Your task to perform on an android device: turn off improve location accuracy Image 0: 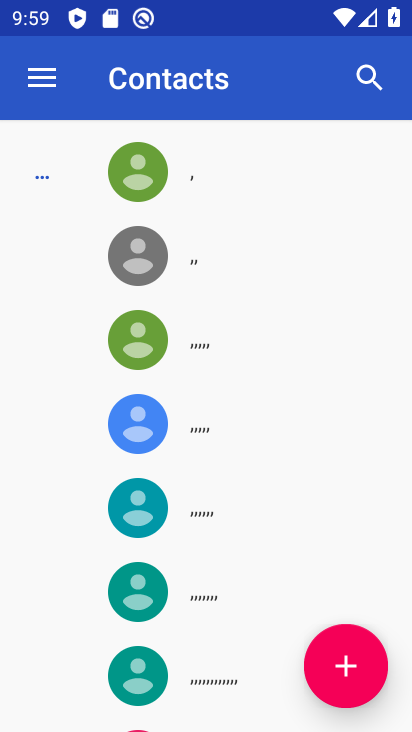
Step 0: press home button
Your task to perform on an android device: turn off improve location accuracy Image 1: 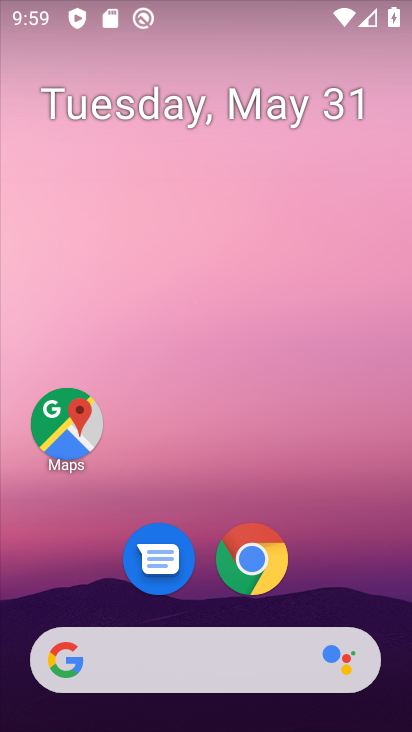
Step 1: drag from (72, 609) to (148, 61)
Your task to perform on an android device: turn off improve location accuracy Image 2: 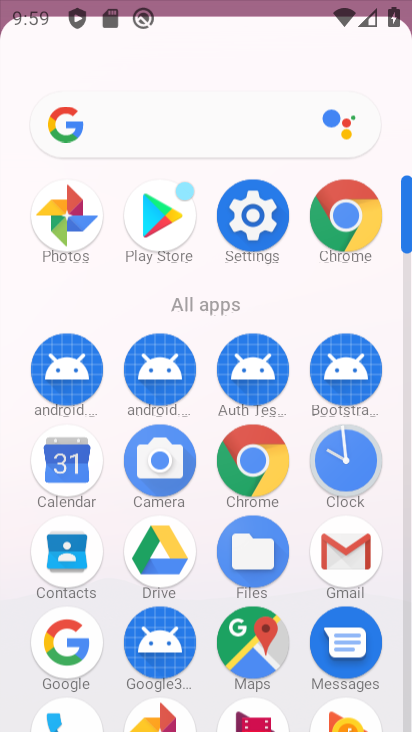
Step 2: drag from (137, 673) to (186, 363)
Your task to perform on an android device: turn off improve location accuracy Image 3: 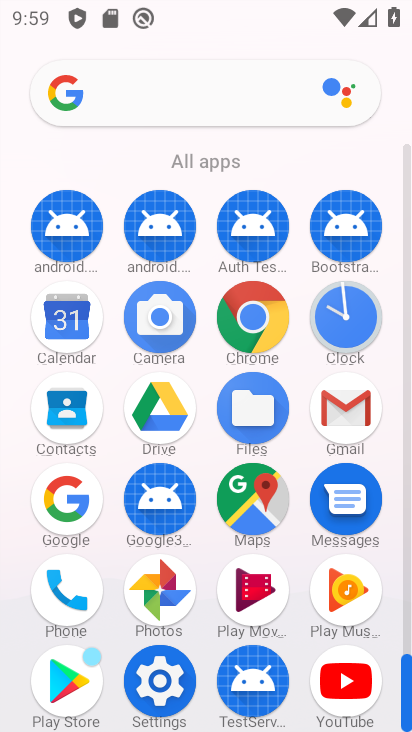
Step 3: click (169, 715)
Your task to perform on an android device: turn off improve location accuracy Image 4: 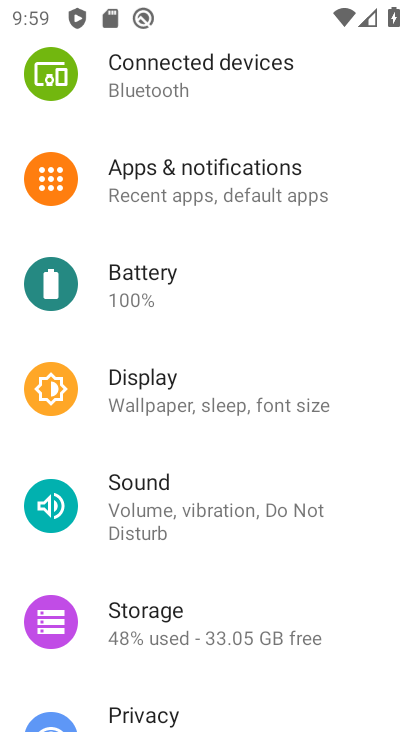
Step 4: drag from (227, 275) to (272, 113)
Your task to perform on an android device: turn off improve location accuracy Image 5: 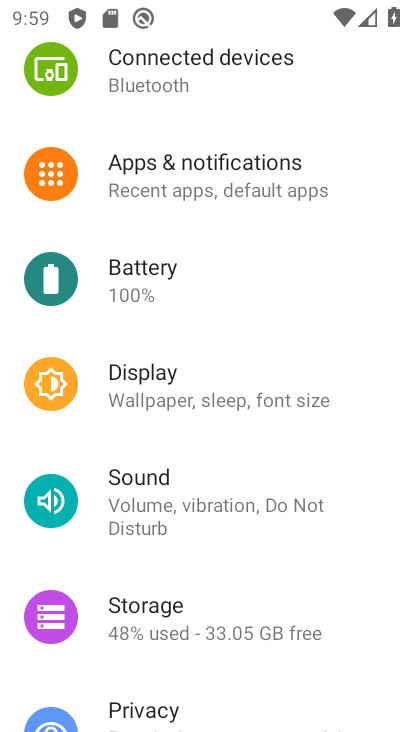
Step 5: drag from (225, 609) to (321, 179)
Your task to perform on an android device: turn off improve location accuracy Image 6: 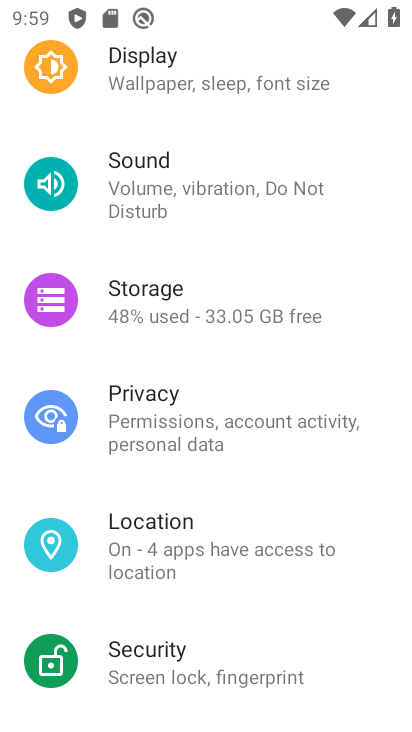
Step 6: click (155, 551)
Your task to perform on an android device: turn off improve location accuracy Image 7: 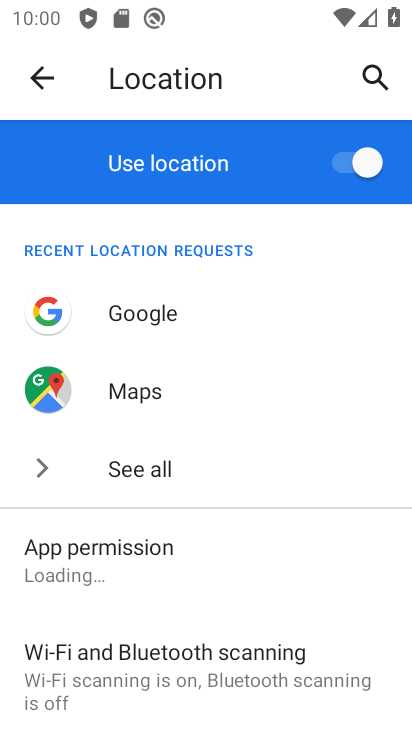
Step 7: drag from (175, 708) to (291, 263)
Your task to perform on an android device: turn off improve location accuracy Image 8: 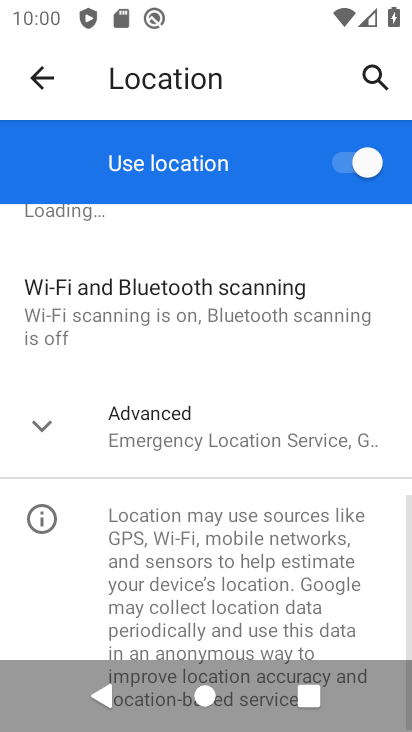
Step 8: click (201, 425)
Your task to perform on an android device: turn off improve location accuracy Image 9: 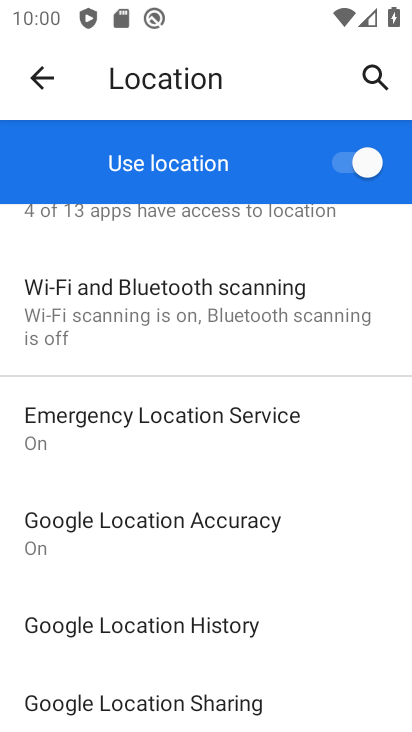
Step 9: click (235, 529)
Your task to perform on an android device: turn off improve location accuracy Image 10: 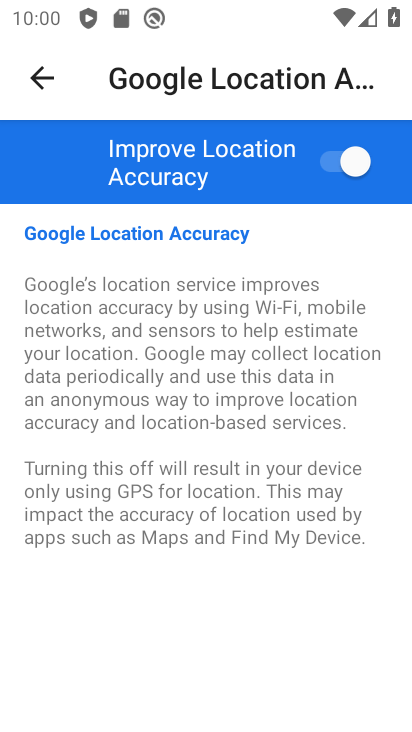
Step 10: click (328, 157)
Your task to perform on an android device: turn off improve location accuracy Image 11: 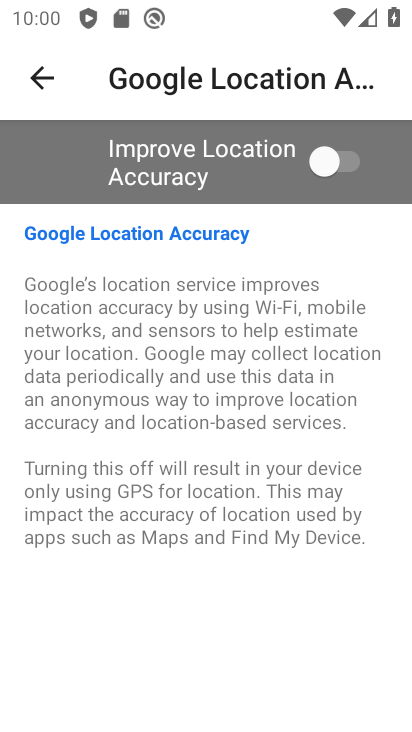
Step 11: task complete